Your task to perform on an android device: open chrome privacy settings Image 0: 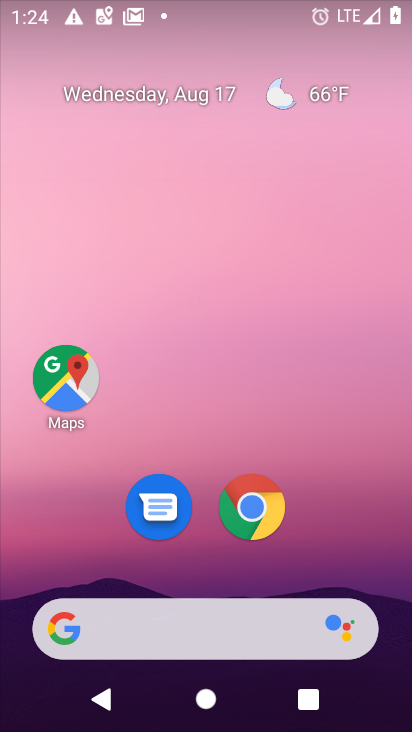
Step 0: click (264, 525)
Your task to perform on an android device: open chrome privacy settings Image 1: 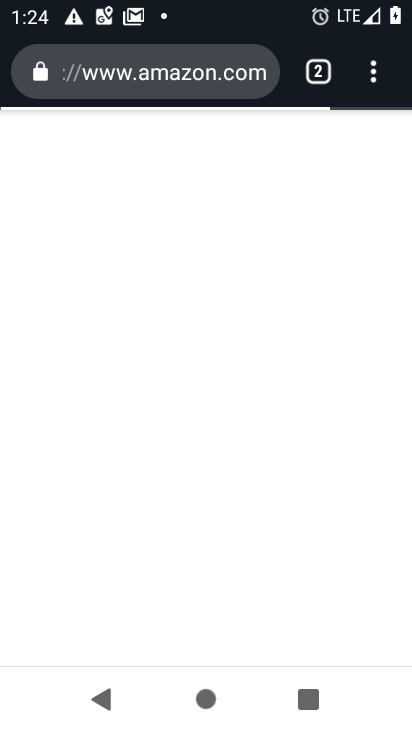
Step 1: click (372, 77)
Your task to perform on an android device: open chrome privacy settings Image 2: 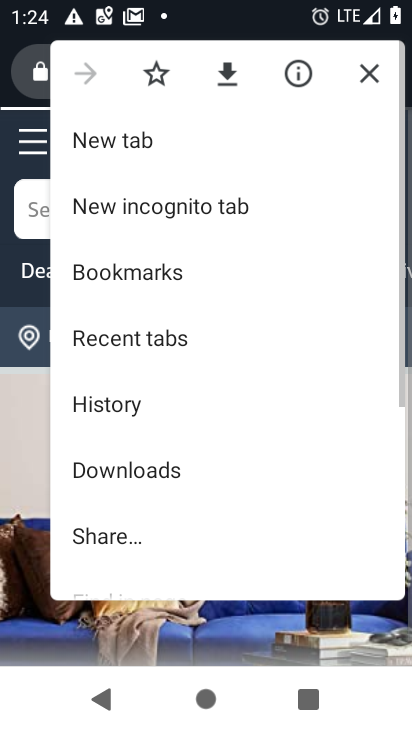
Step 2: drag from (197, 531) to (152, 28)
Your task to perform on an android device: open chrome privacy settings Image 3: 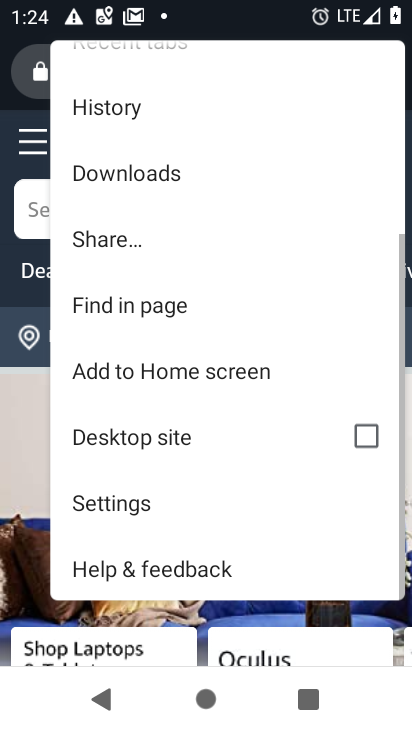
Step 3: click (68, 514)
Your task to perform on an android device: open chrome privacy settings Image 4: 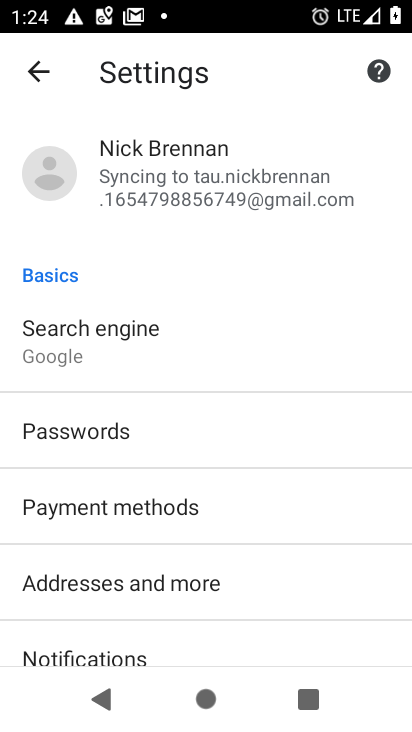
Step 4: drag from (260, 626) to (213, 55)
Your task to perform on an android device: open chrome privacy settings Image 5: 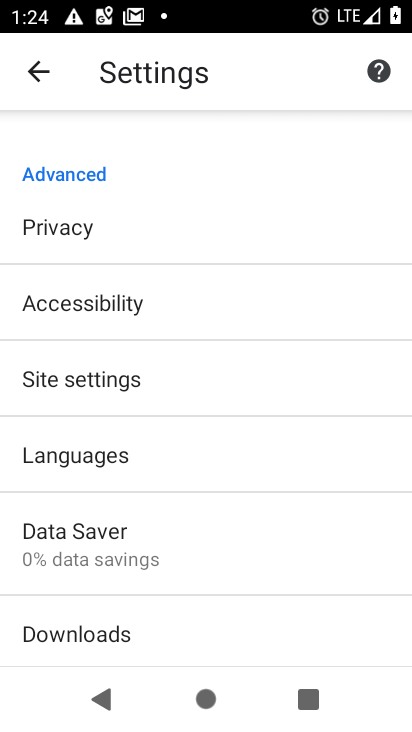
Step 5: click (53, 227)
Your task to perform on an android device: open chrome privacy settings Image 6: 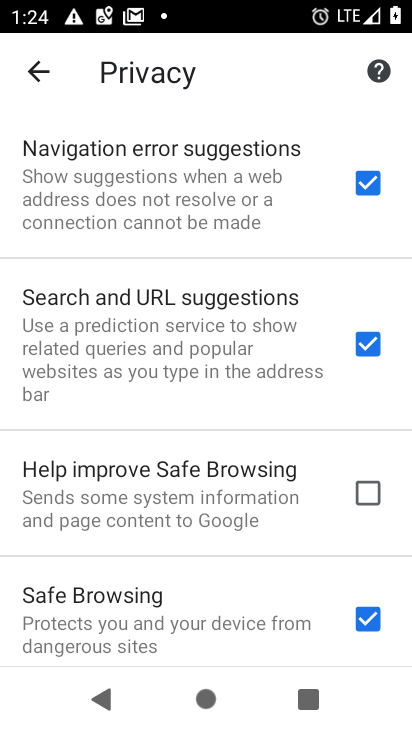
Step 6: task complete